Your task to perform on an android device: Set the phone to "Do not disturb". Image 0: 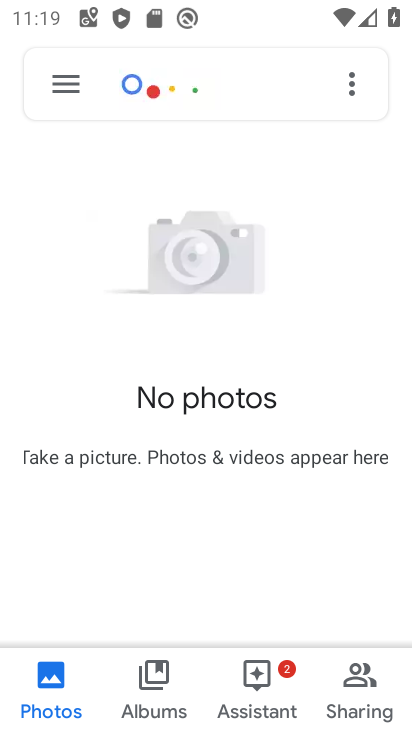
Step 0: press home button
Your task to perform on an android device: Set the phone to "Do not disturb". Image 1: 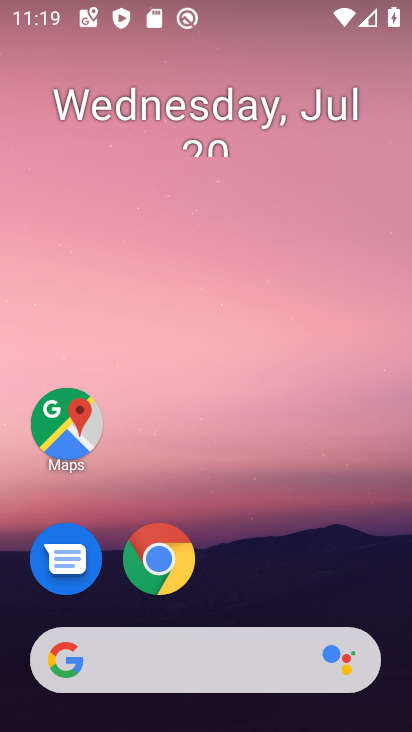
Step 1: drag from (234, 625) to (266, 143)
Your task to perform on an android device: Set the phone to "Do not disturb". Image 2: 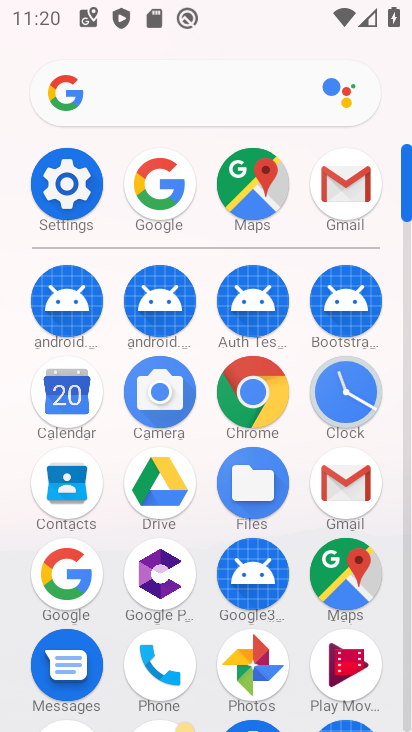
Step 2: drag from (219, 385) to (221, 572)
Your task to perform on an android device: Set the phone to "Do not disturb". Image 3: 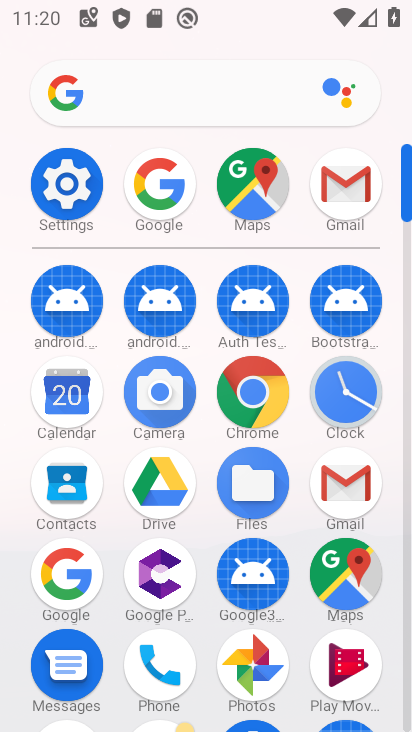
Step 3: click (287, 526)
Your task to perform on an android device: Set the phone to "Do not disturb". Image 4: 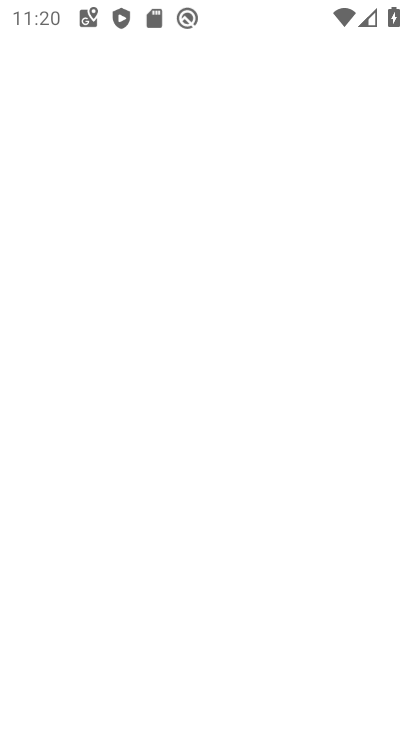
Step 4: drag from (222, 15) to (268, 528)
Your task to perform on an android device: Set the phone to "Do not disturb". Image 5: 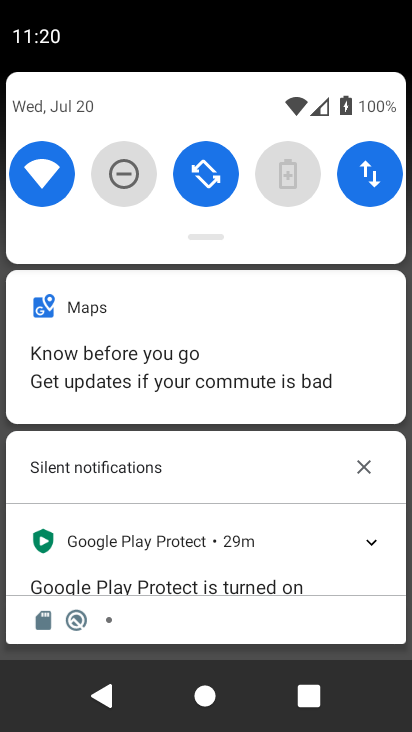
Step 5: click (129, 180)
Your task to perform on an android device: Set the phone to "Do not disturb". Image 6: 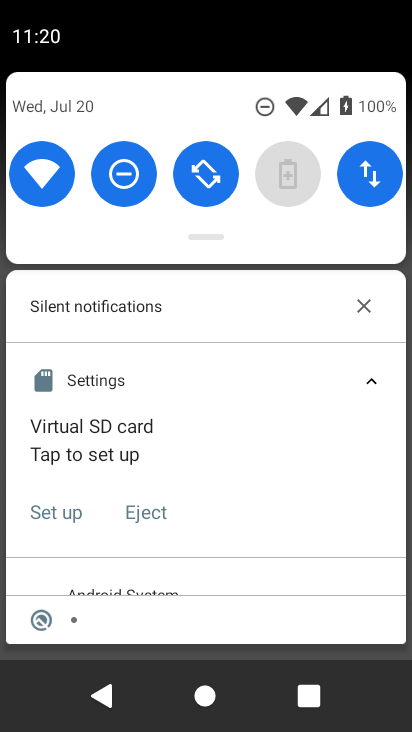
Step 6: task complete